Your task to perform on an android device: open app "Walmart Shopping & Grocery" (install if not already installed) and enter user name: "Hans@icloud.com" and password: "executing" Image 0: 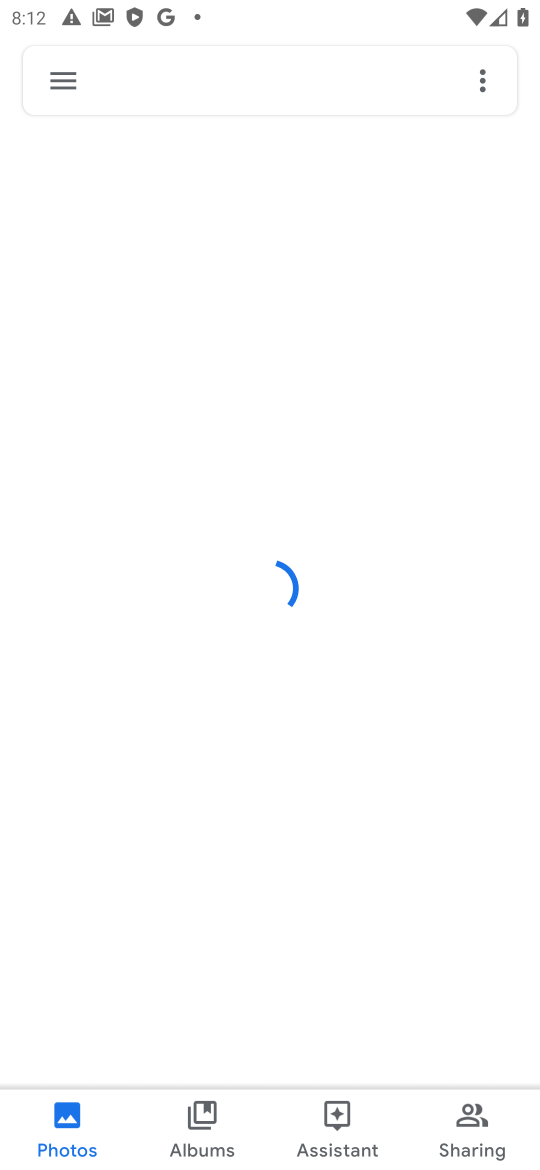
Step 0: press home button
Your task to perform on an android device: open app "Walmart Shopping & Grocery" (install if not already installed) and enter user name: "Hans@icloud.com" and password: "executing" Image 1: 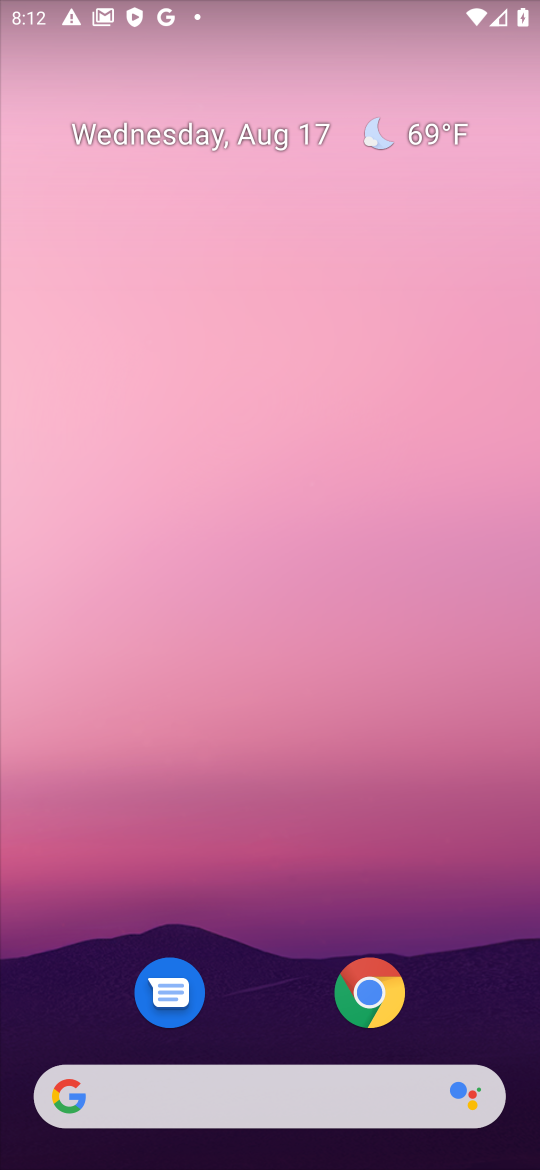
Step 1: drag from (494, 1002) to (272, 118)
Your task to perform on an android device: open app "Walmart Shopping & Grocery" (install if not already installed) and enter user name: "Hans@icloud.com" and password: "executing" Image 2: 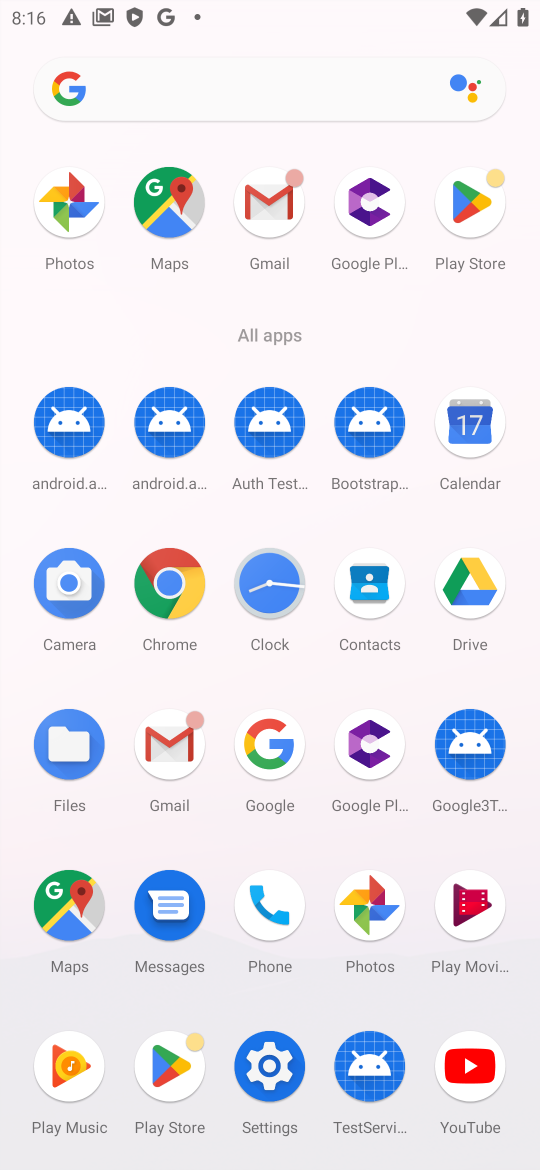
Step 2: click (184, 1087)
Your task to perform on an android device: open app "Walmart Shopping & Grocery" (install if not already installed) and enter user name: "Hans@icloud.com" and password: "executing" Image 3: 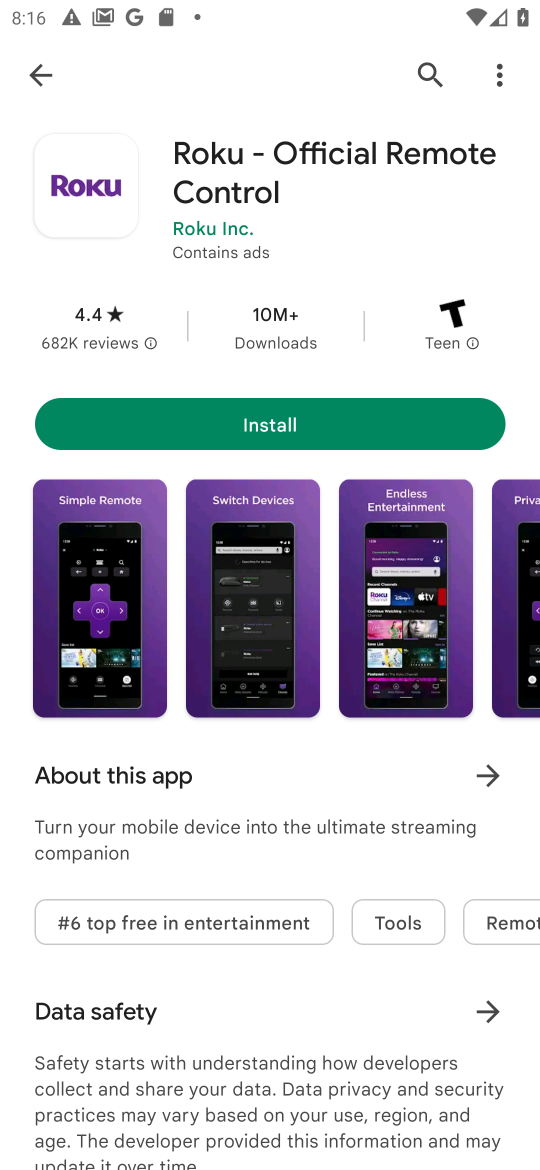
Step 3: press back button
Your task to perform on an android device: open app "Walmart Shopping & Grocery" (install if not already installed) and enter user name: "Hans@icloud.com" and password: "executing" Image 4: 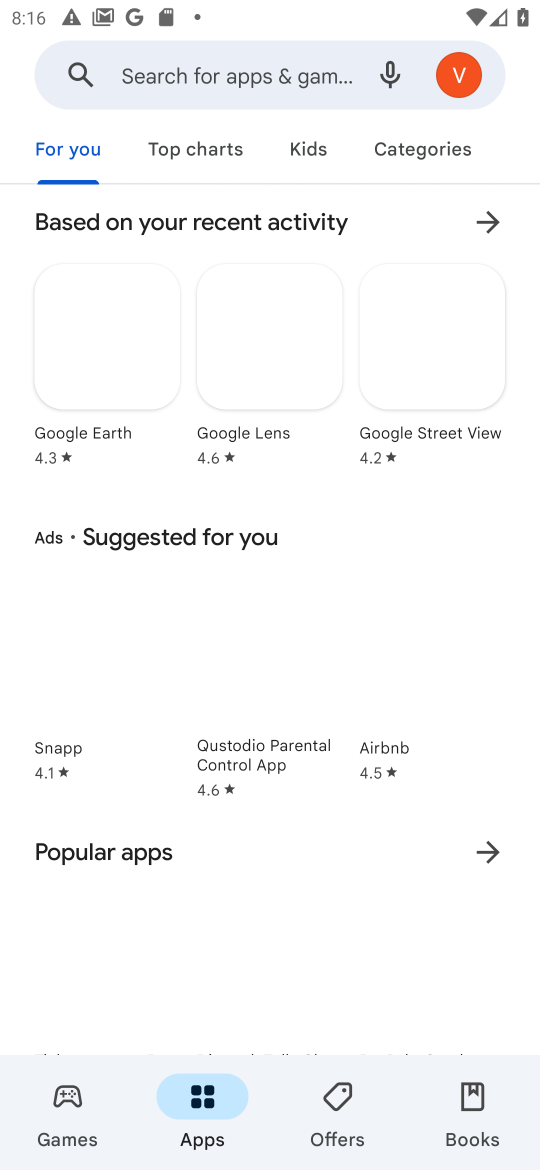
Step 4: click (201, 81)
Your task to perform on an android device: open app "Walmart Shopping & Grocery" (install if not already installed) and enter user name: "Hans@icloud.com" and password: "executing" Image 5: 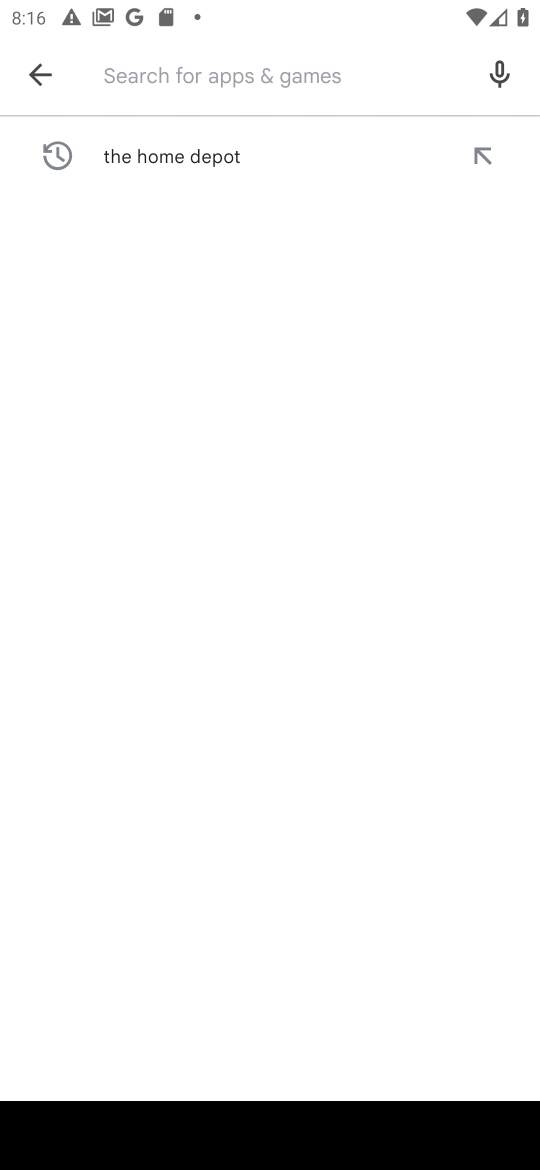
Step 5: type "Walmart Shopping & Grocery"
Your task to perform on an android device: open app "Walmart Shopping & Grocery" (install if not already installed) and enter user name: "Hans@icloud.com" and password: "executing" Image 6: 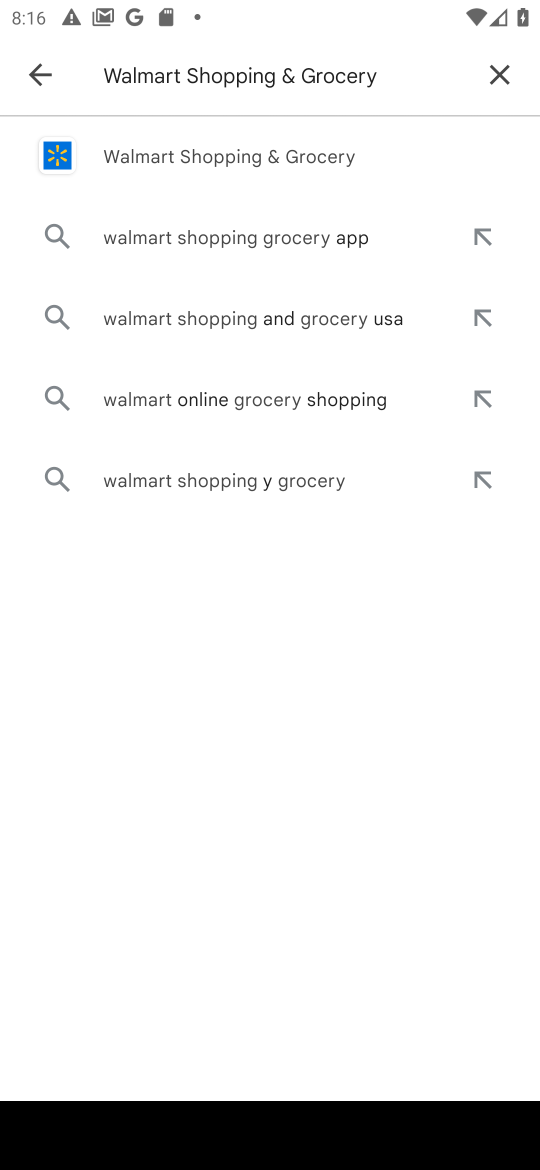
Step 6: click (165, 167)
Your task to perform on an android device: open app "Walmart Shopping & Grocery" (install if not already installed) and enter user name: "Hans@icloud.com" and password: "executing" Image 7: 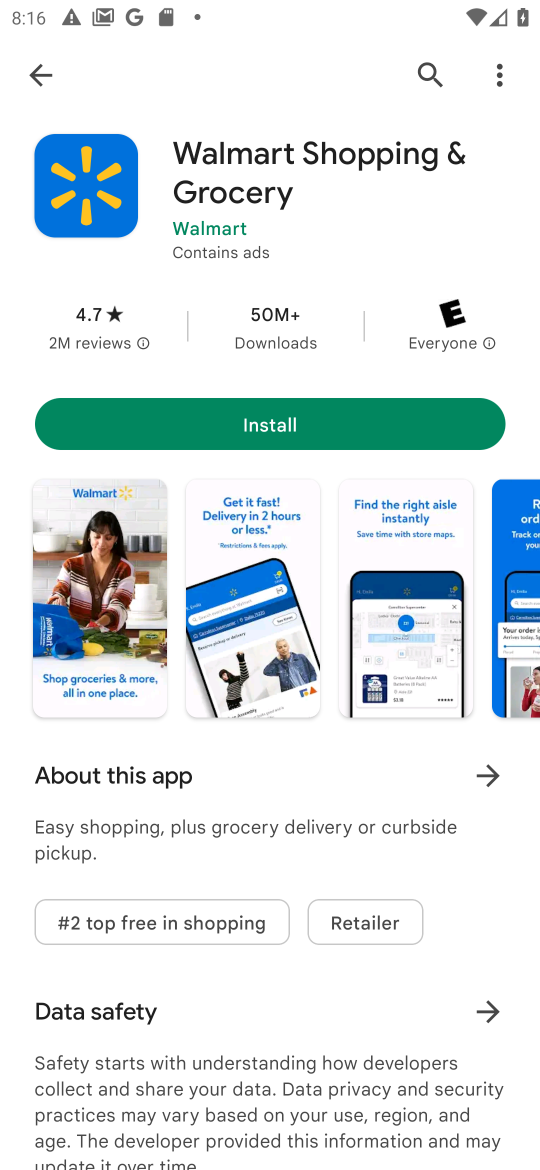
Step 7: task complete